Your task to perform on an android device: Go to Google maps Image 0: 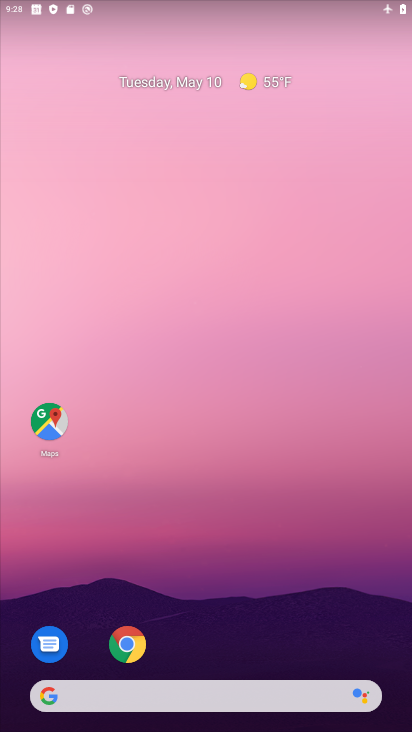
Step 0: drag from (265, 659) to (215, 7)
Your task to perform on an android device: Go to Google maps Image 1: 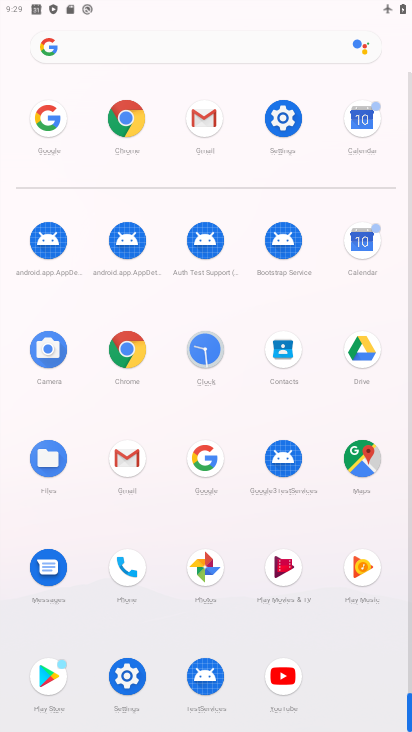
Step 1: click (373, 469)
Your task to perform on an android device: Go to Google maps Image 2: 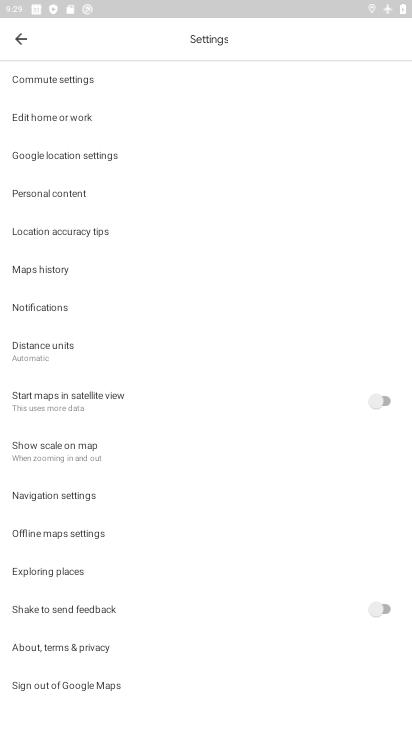
Step 2: press home button
Your task to perform on an android device: Go to Google maps Image 3: 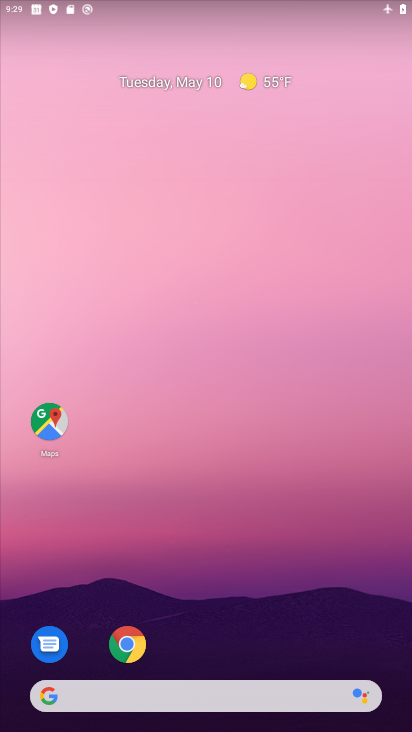
Step 3: click (30, 437)
Your task to perform on an android device: Go to Google maps Image 4: 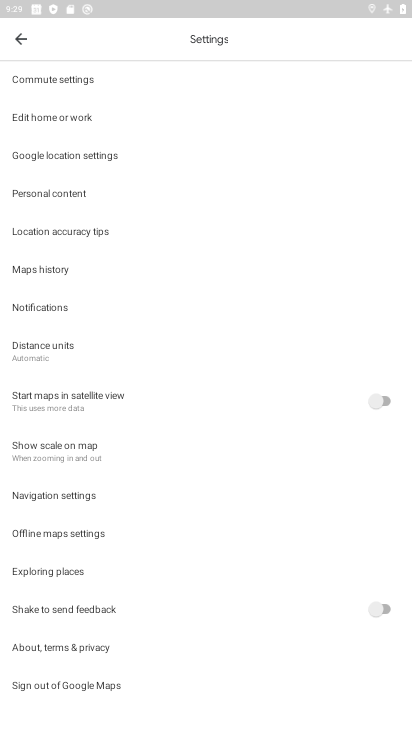
Step 4: click (25, 37)
Your task to perform on an android device: Go to Google maps Image 5: 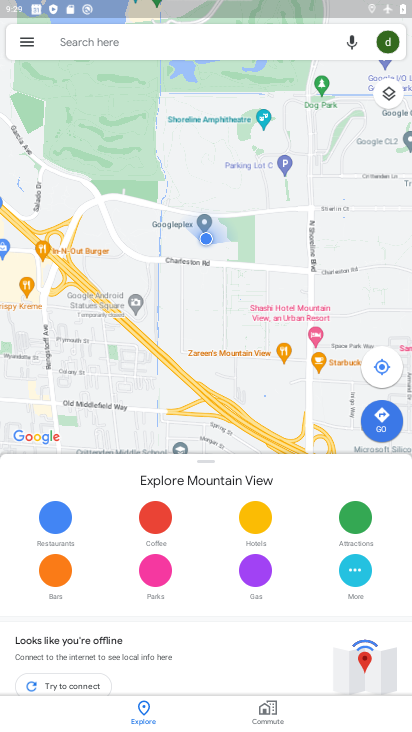
Step 5: task complete